Your task to perform on an android device: Search for pizza restaurants on Maps Image 0: 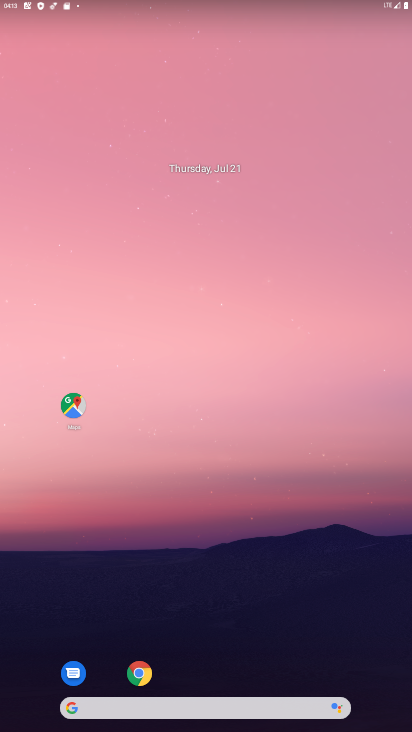
Step 0: drag from (283, 659) to (269, 140)
Your task to perform on an android device: Search for pizza restaurants on Maps Image 1: 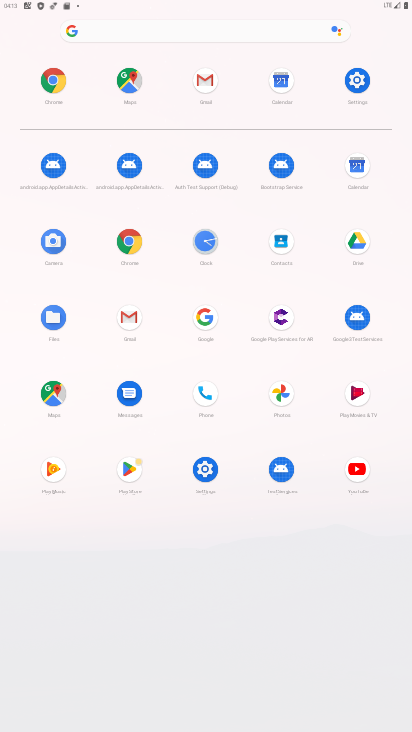
Step 1: click (45, 394)
Your task to perform on an android device: Search for pizza restaurants on Maps Image 2: 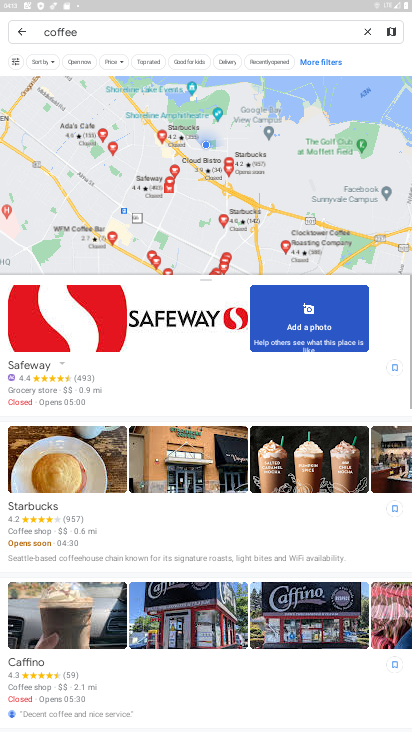
Step 2: click (366, 30)
Your task to perform on an android device: Search for pizza restaurants on Maps Image 3: 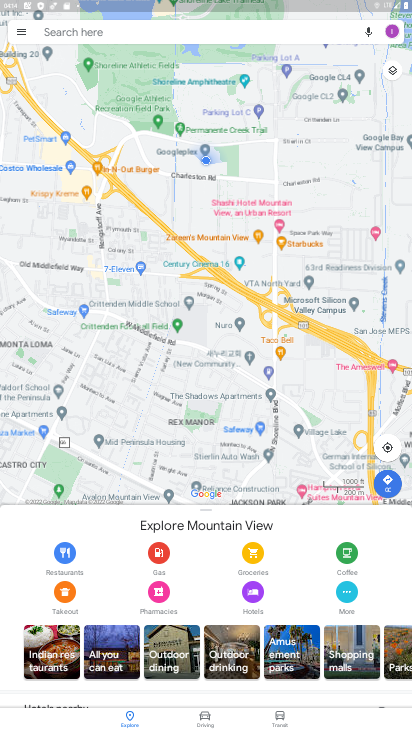
Step 3: click (310, 32)
Your task to perform on an android device: Search for pizza restaurants on Maps Image 4: 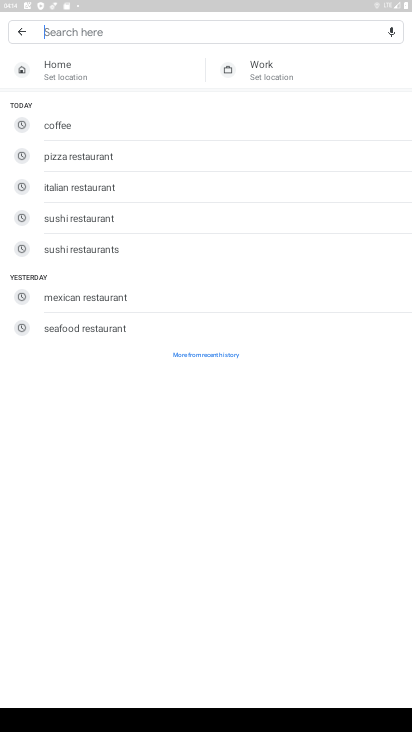
Step 4: type "pizza restaurants"
Your task to perform on an android device: Search for pizza restaurants on Maps Image 5: 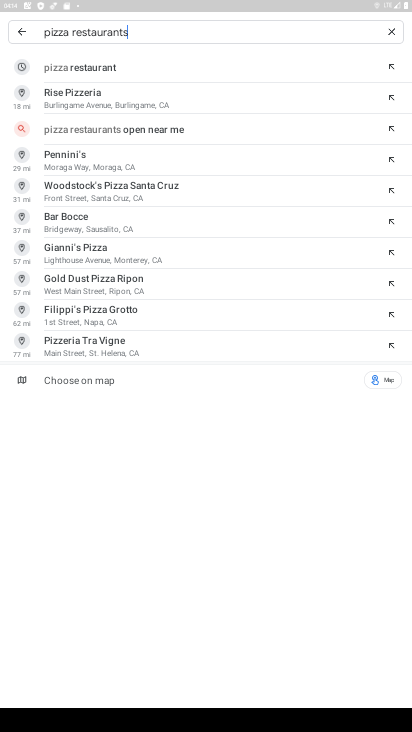
Step 5: press enter
Your task to perform on an android device: Search for pizza restaurants on Maps Image 6: 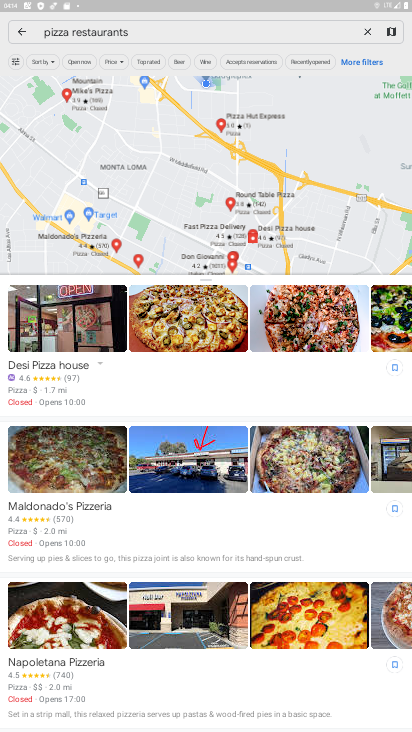
Step 6: task complete